Your task to perform on an android device: Open battery settings Image 0: 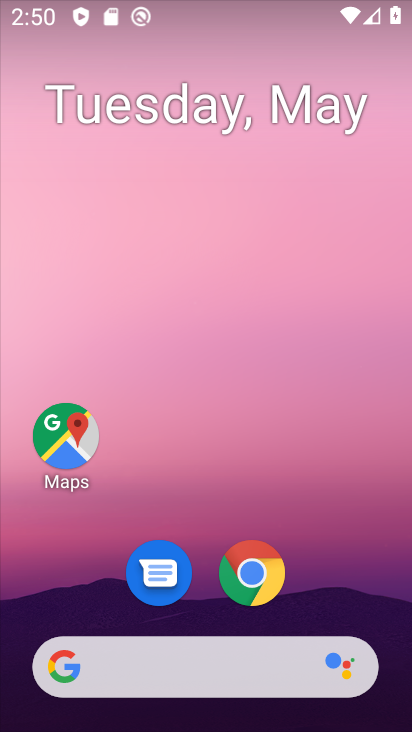
Step 0: drag from (321, 547) to (247, 12)
Your task to perform on an android device: Open battery settings Image 1: 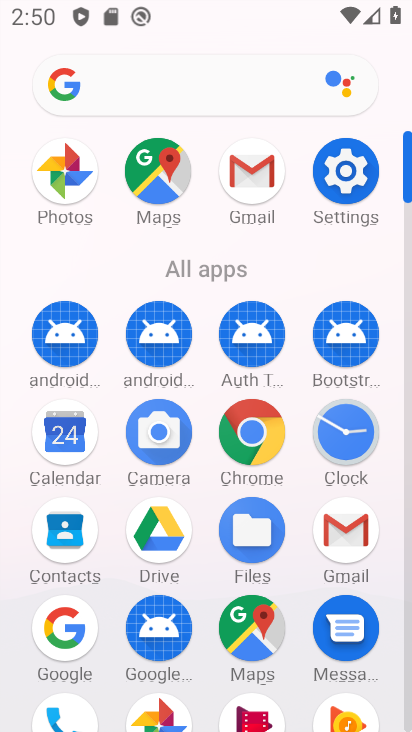
Step 1: click (345, 165)
Your task to perform on an android device: Open battery settings Image 2: 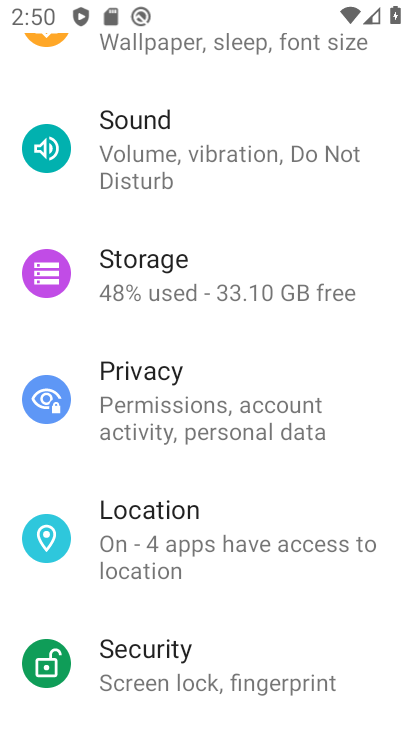
Step 2: drag from (220, 144) to (217, 536)
Your task to perform on an android device: Open battery settings Image 3: 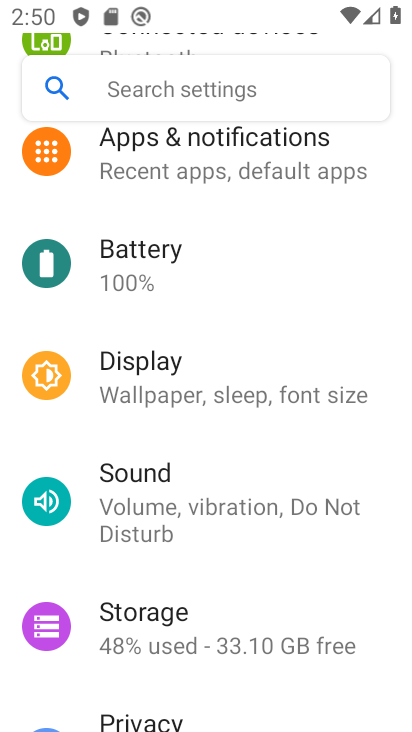
Step 3: click (176, 255)
Your task to perform on an android device: Open battery settings Image 4: 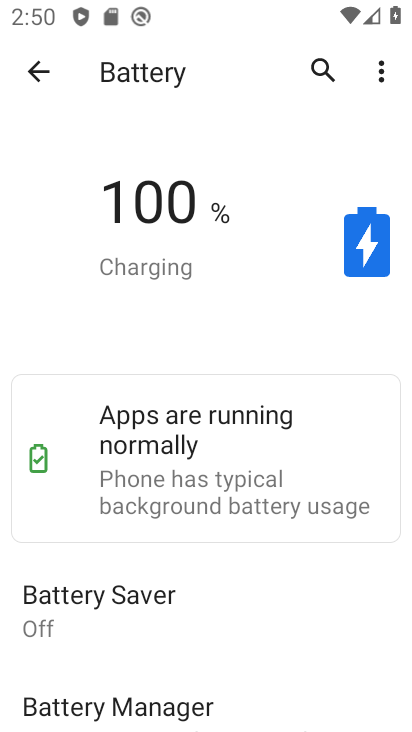
Step 4: task complete